Your task to perform on an android device: turn on notifications settings in the gmail app Image 0: 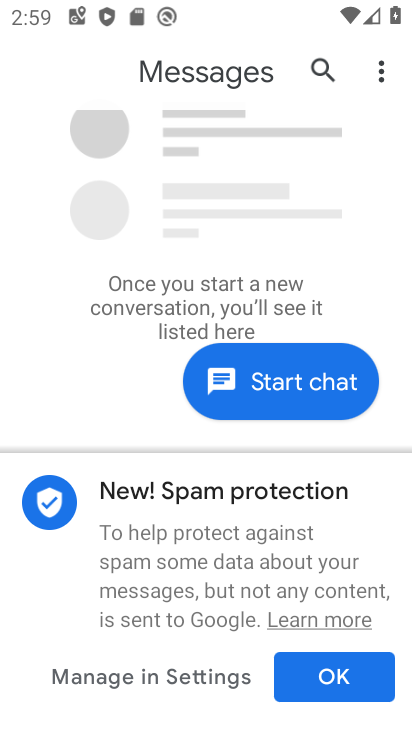
Step 0: press home button
Your task to perform on an android device: turn on notifications settings in the gmail app Image 1: 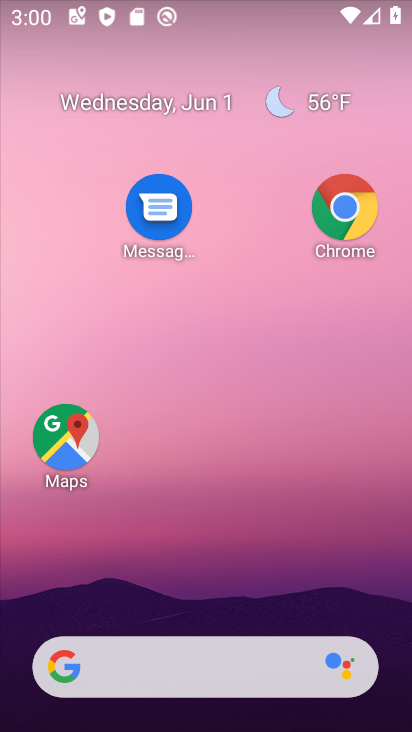
Step 1: drag from (192, 578) to (219, 119)
Your task to perform on an android device: turn on notifications settings in the gmail app Image 2: 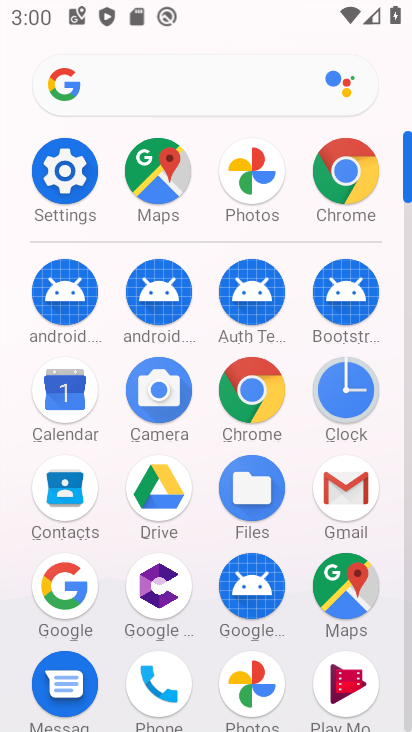
Step 2: click (362, 490)
Your task to perform on an android device: turn on notifications settings in the gmail app Image 3: 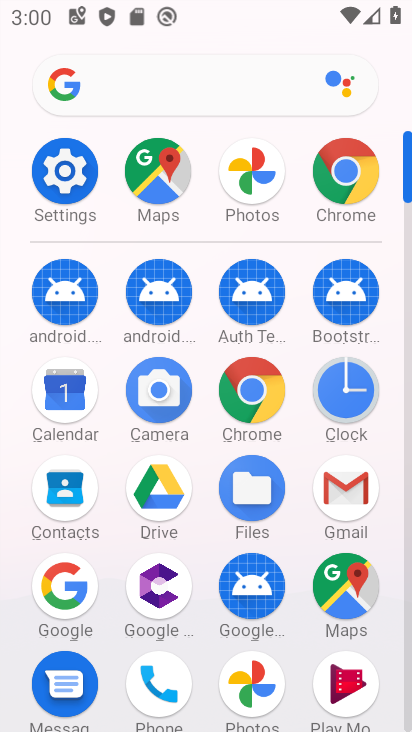
Step 3: click (362, 490)
Your task to perform on an android device: turn on notifications settings in the gmail app Image 4: 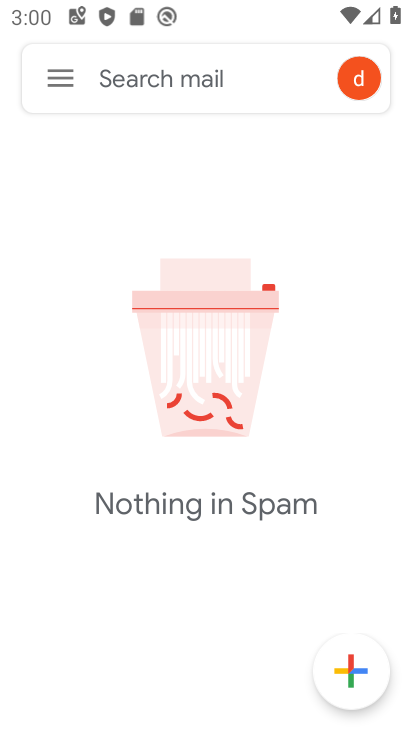
Step 4: click (77, 78)
Your task to perform on an android device: turn on notifications settings in the gmail app Image 5: 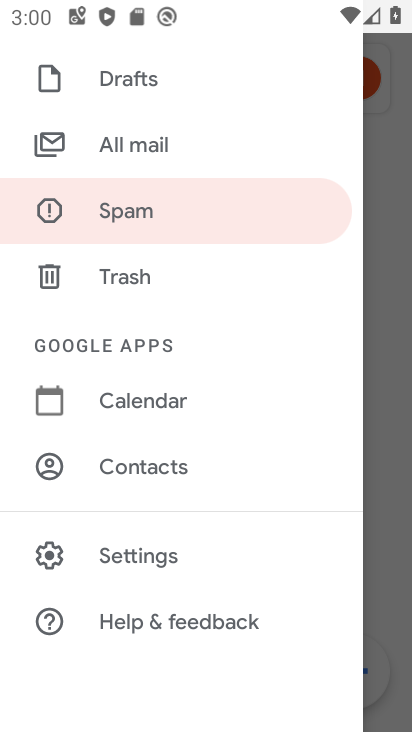
Step 5: click (144, 550)
Your task to perform on an android device: turn on notifications settings in the gmail app Image 6: 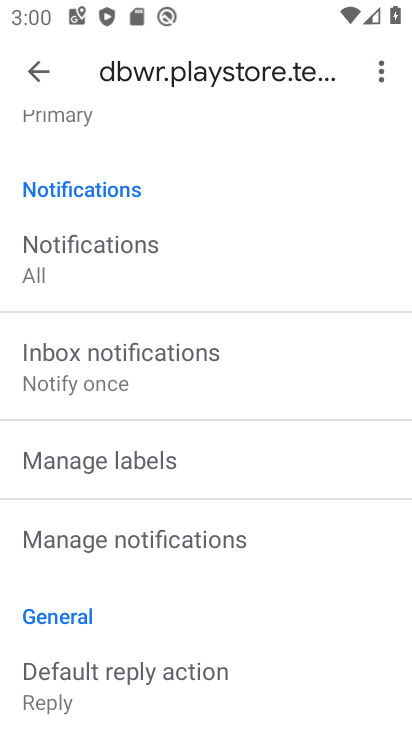
Step 6: click (139, 525)
Your task to perform on an android device: turn on notifications settings in the gmail app Image 7: 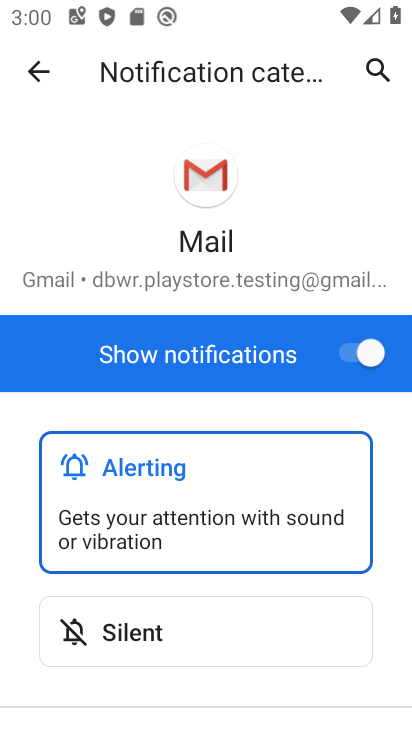
Step 7: task complete